Your task to perform on an android device: Go to Google Image 0: 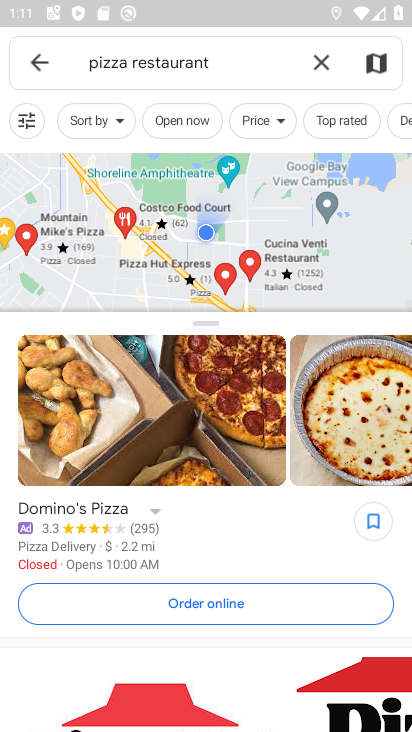
Step 0: press home button
Your task to perform on an android device: Go to Google Image 1: 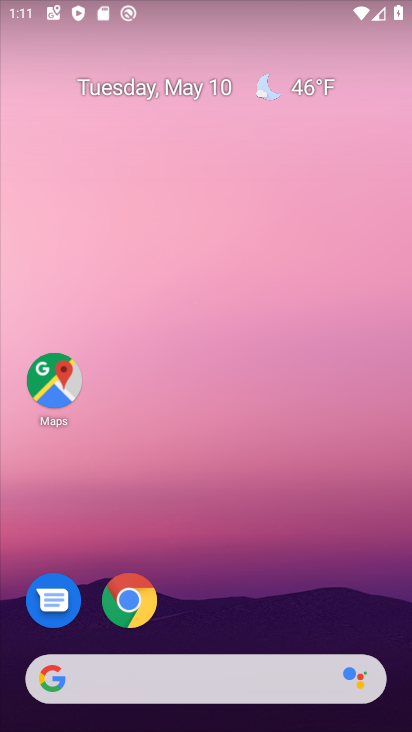
Step 1: drag from (167, 690) to (311, 56)
Your task to perform on an android device: Go to Google Image 2: 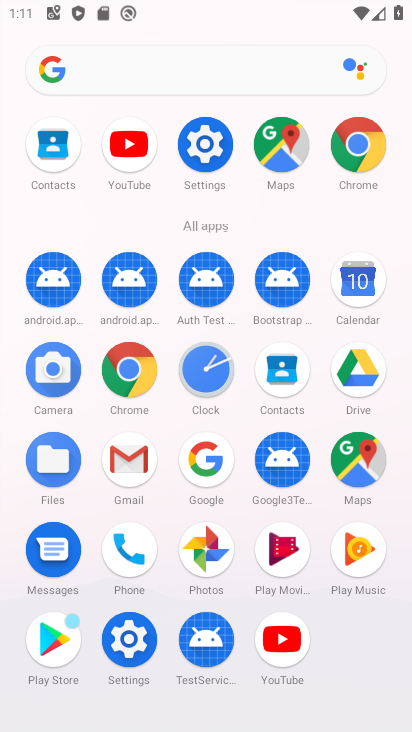
Step 2: click (210, 475)
Your task to perform on an android device: Go to Google Image 3: 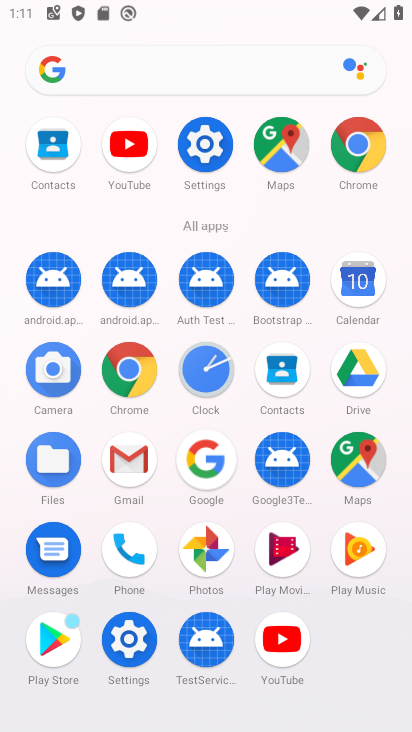
Step 3: click (207, 472)
Your task to perform on an android device: Go to Google Image 4: 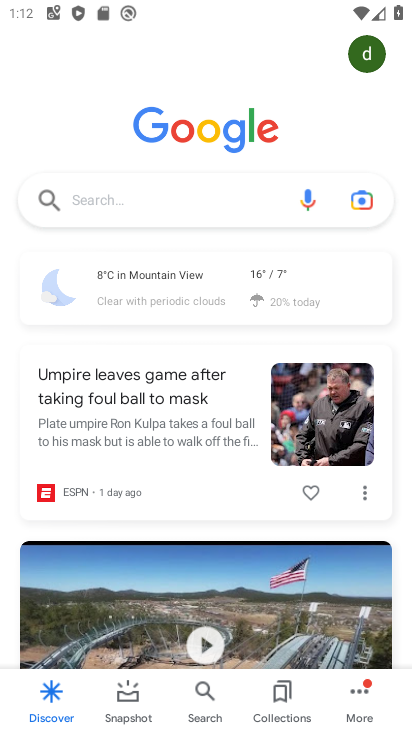
Step 4: task complete